Your task to perform on an android device: Open display settings Image 0: 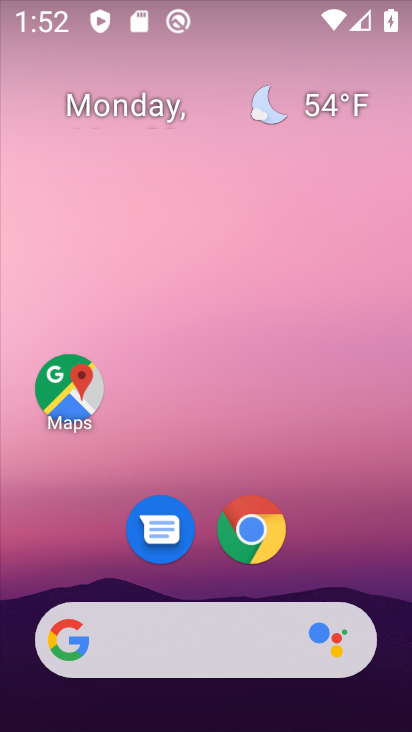
Step 0: drag from (74, 613) to (225, 141)
Your task to perform on an android device: Open display settings Image 1: 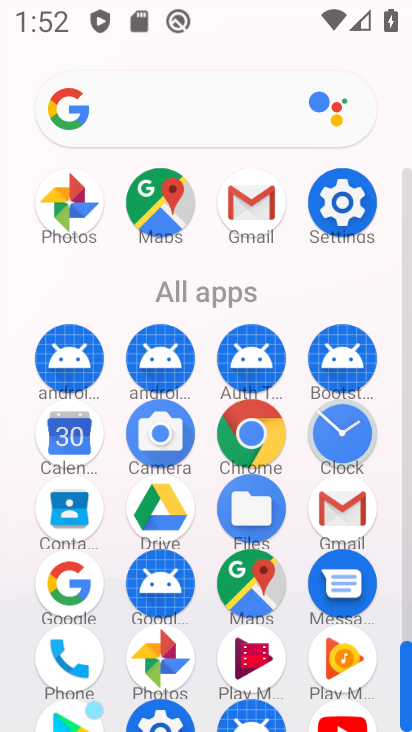
Step 1: drag from (190, 570) to (244, 354)
Your task to perform on an android device: Open display settings Image 2: 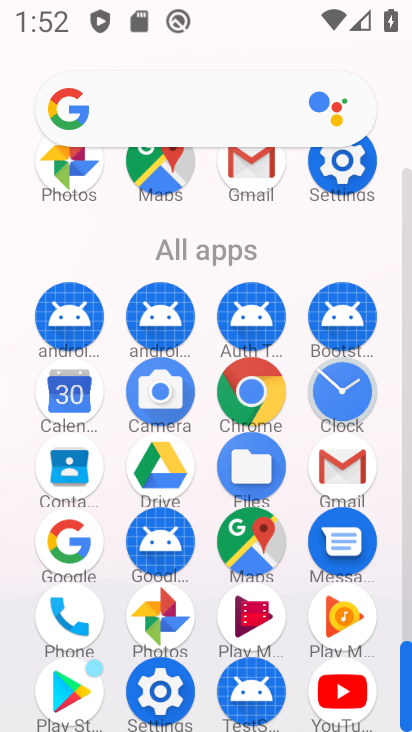
Step 2: click (165, 681)
Your task to perform on an android device: Open display settings Image 3: 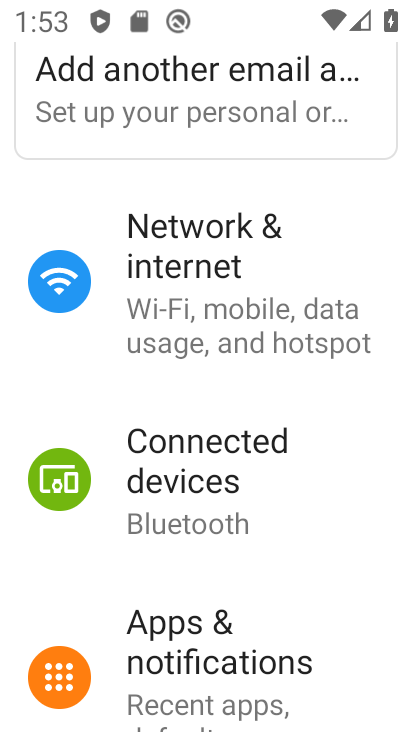
Step 3: drag from (135, 706) to (243, 354)
Your task to perform on an android device: Open display settings Image 4: 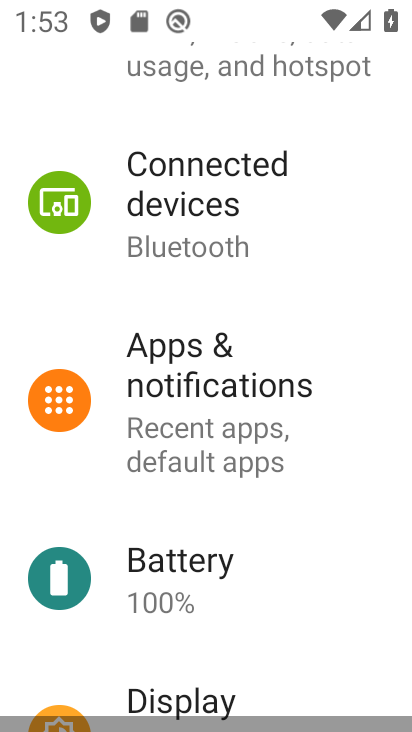
Step 4: drag from (192, 611) to (269, 308)
Your task to perform on an android device: Open display settings Image 5: 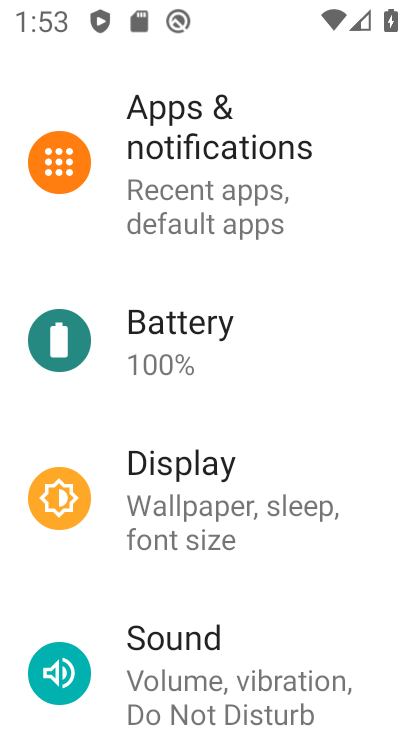
Step 5: click (247, 521)
Your task to perform on an android device: Open display settings Image 6: 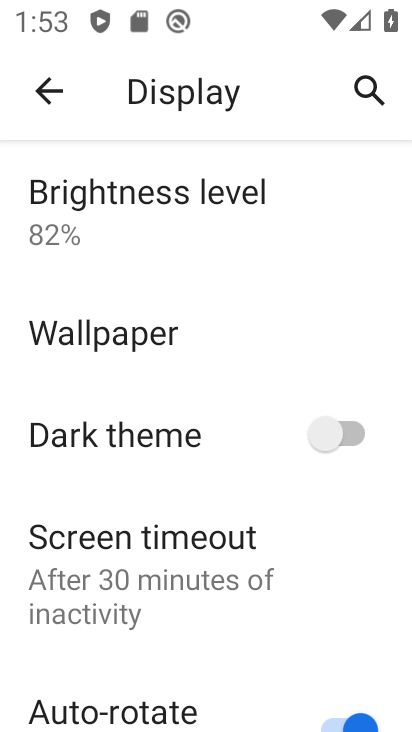
Step 6: task complete